Your task to perform on an android device: Go to Google Image 0: 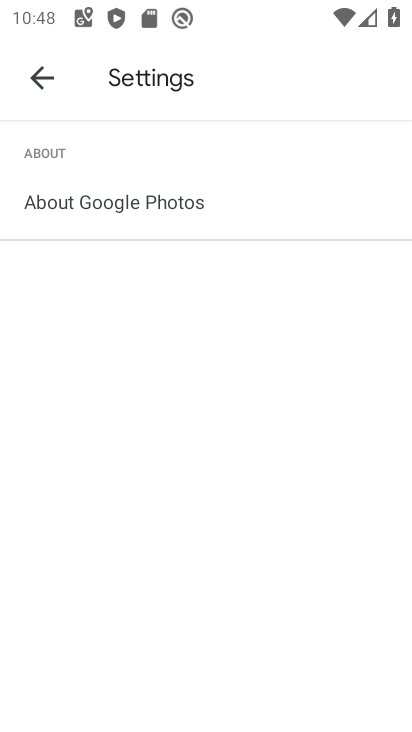
Step 0: press home button
Your task to perform on an android device: Go to Google Image 1: 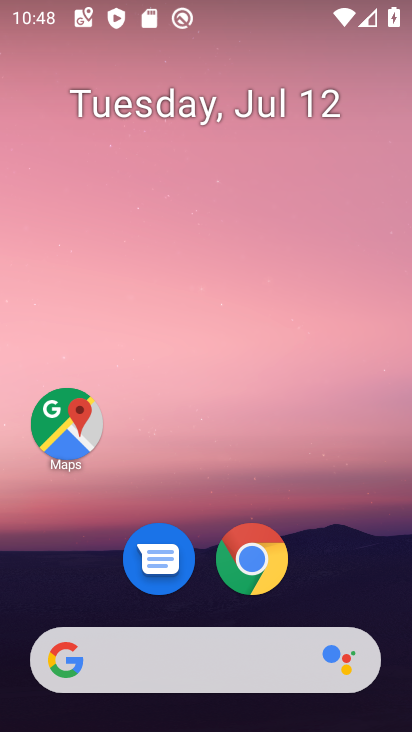
Step 1: drag from (191, 478) to (203, 235)
Your task to perform on an android device: Go to Google Image 2: 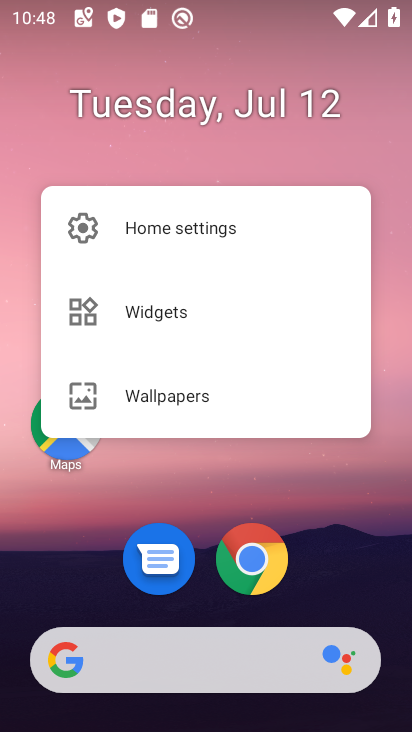
Step 2: click (348, 571)
Your task to perform on an android device: Go to Google Image 3: 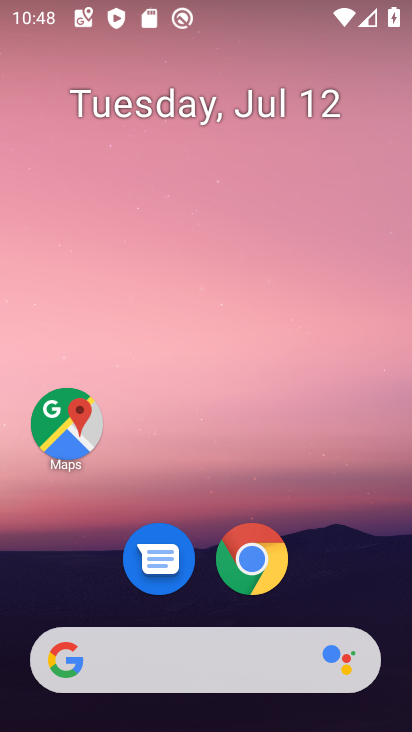
Step 3: drag from (211, 650) to (254, 303)
Your task to perform on an android device: Go to Google Image 4: 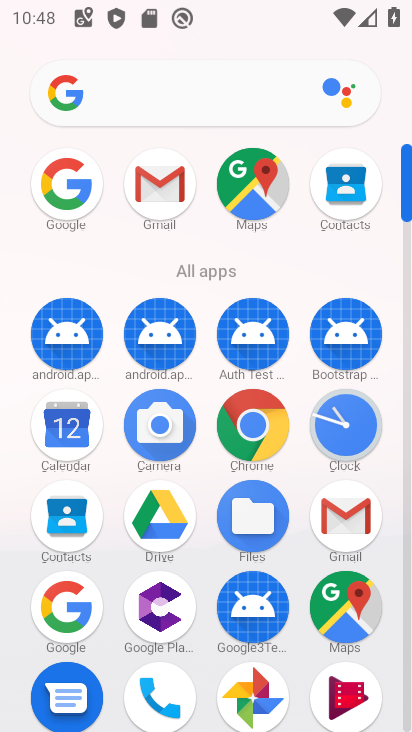
Step 4: click (95, 618)
Your task to perform on an android device: Go to Google Image 5: 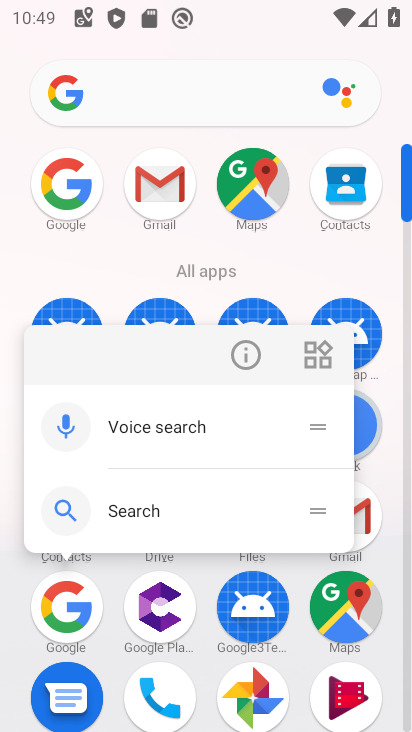
Step 5: click (84, 613)
Your task to perform on an android device: Go to Google Image 6: 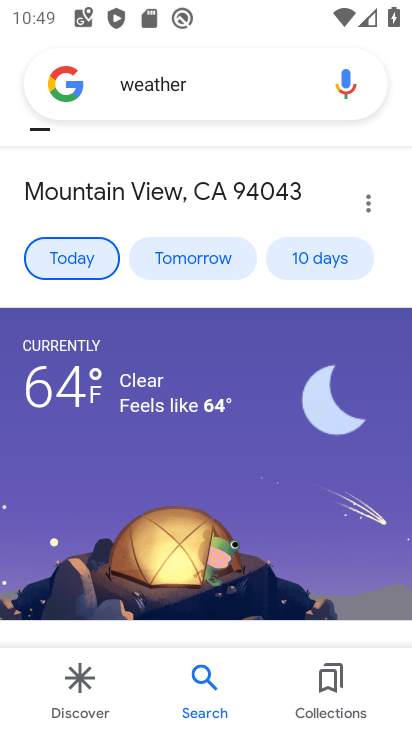
Step 6: task complete